Your task to perform on an android device: Go to calendar. Show me events next week Image 0: 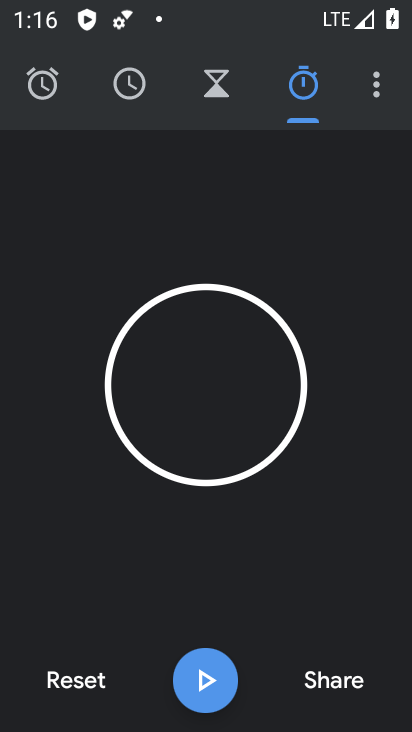
Step 0: press home button
Your task to perform on an android device: Go to calendar. Show me events next week Image 1: 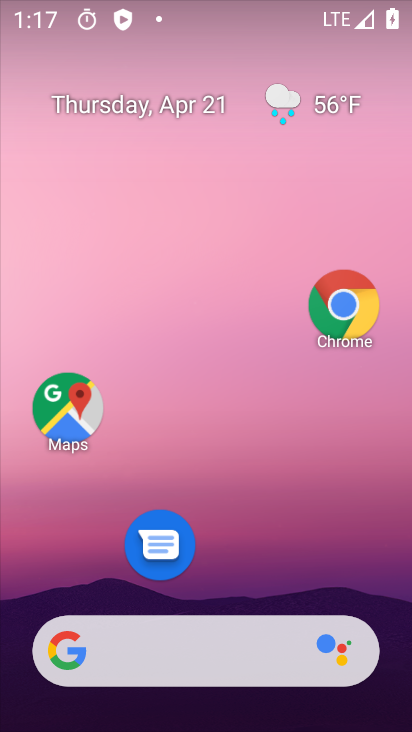
Step 1: drag from (151, 669) to (298, 226)
Your task to perform on an android device: Go to calendar. Show me events next week Image 2: 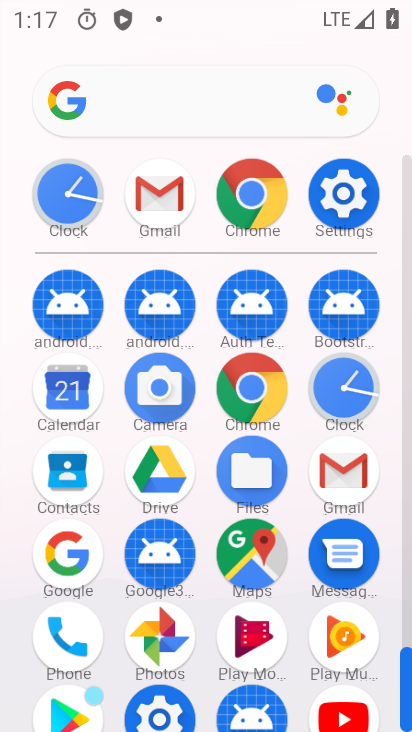
Step 2: click (75, 398)
Your task to perform on an android device: Go to calendar. Show me events next week Image 3: 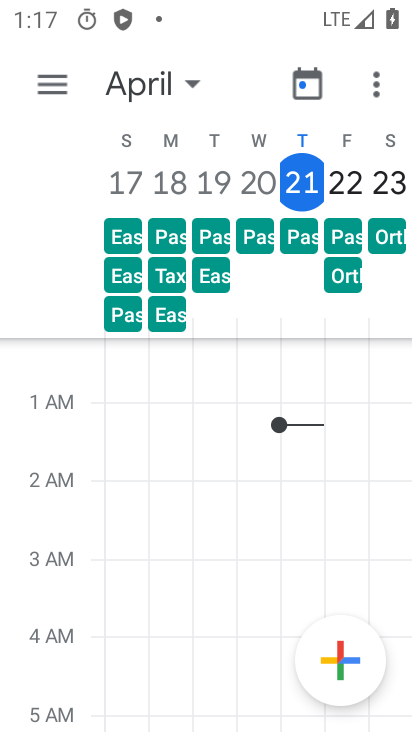
Step 3: click (132, 85)
Your task to perform on an android device: Go to calendar. Show me events next week Image 4: 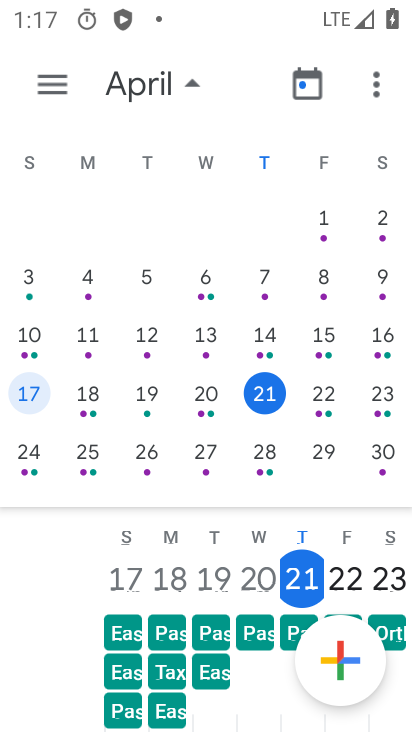
Step 4: drag from (363, 298) to (5, 294)
Your task to perform on an android device: Go to calendar. Show me events next week Image 5: 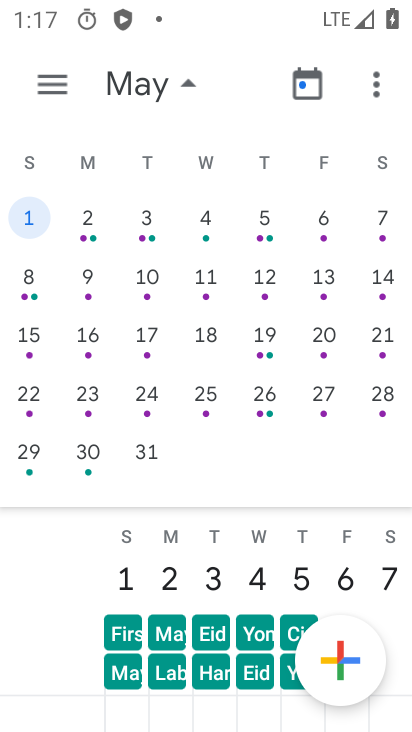
Step 5: drag from (29, 329) to (354, 306)
Your task to perform on an android device: Go to calendar. Show me events next week Image 6: 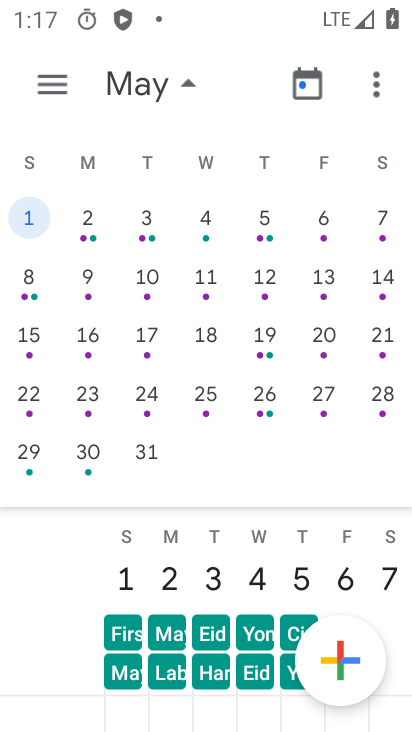
Step 6: drag from (188, 240) to (402, 241)
Your task to perform on an android device: Go to calendar. Show me events next week Image 7: 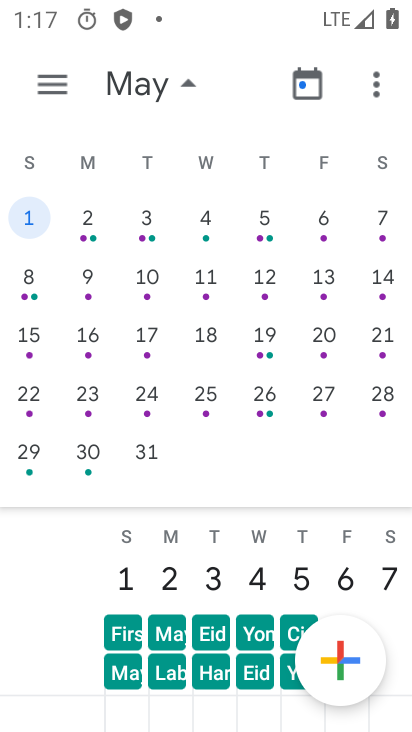
Step 7: drag from (137, 232) to (397, 255)
Your task to perform on an android device: Go to calendar. Show me events next week Image 8: 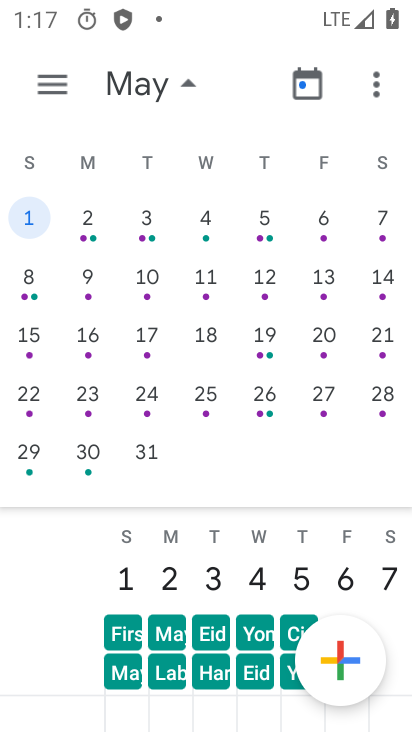
Step 8: click (185, 87)
Your task to perform on an android device: Go to calendar. Show me events next week Image 9: 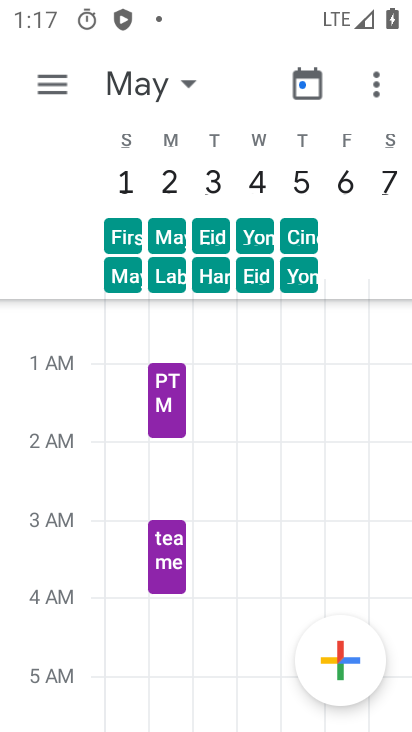
Step 9: click (155, 84)
Your task to perform on an android device: Go to calendar. Show me events next week Image 10: 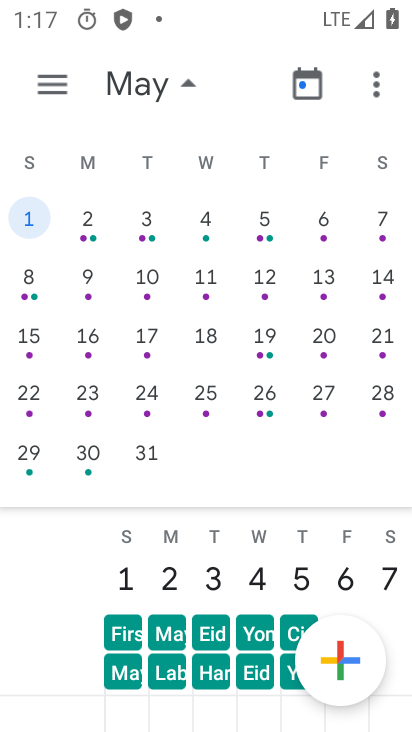
Step 10: click (304, 95)
Your task to perform on an android device: Go to calendar. Show me events next week Image 11: 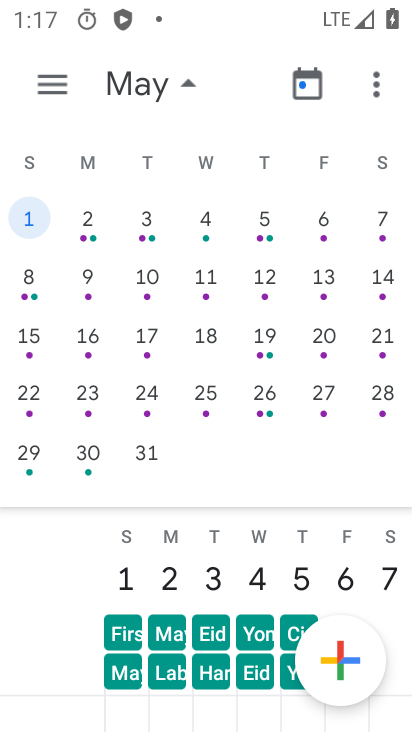
Step 11: drag from (130, 353) to (388, 331)
Your task to perform on an android device: Go to calendar. Show me events next week Image 12: 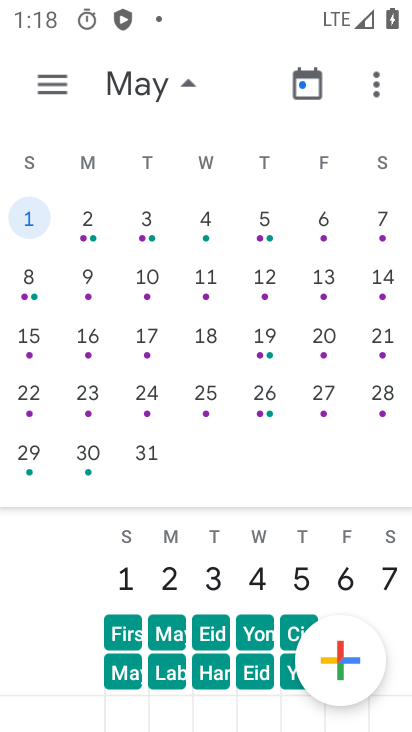
Step 12: drag from (140, 332) to (408, 340)
Your task to perform on an android device: Go to calendar. Show me events next week Image 13: 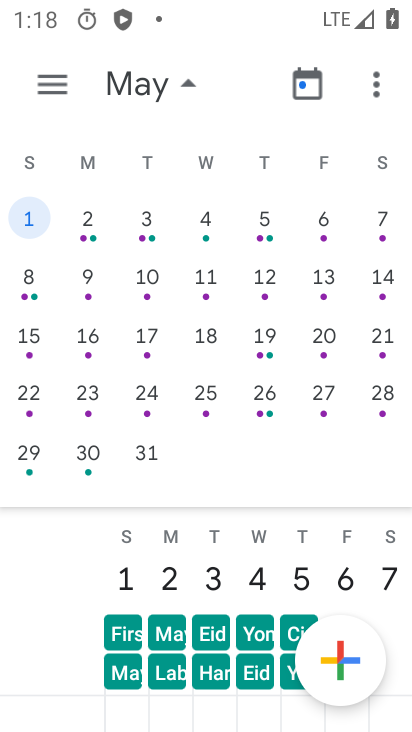
Step 13: drag from (108, 249) to (411, 298)
Your task to perform on an android device: Go to calendar. Show me events next week Image 14: 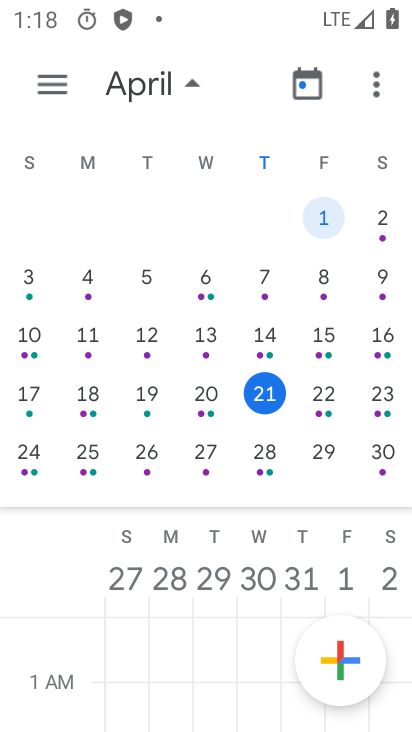
Step 14: click (23, 452)
Your task to perform on an android device: Go to calendar. Show me events next week Image 15: 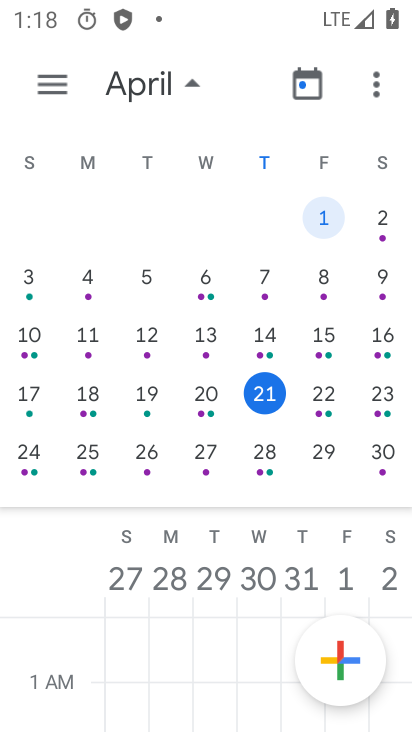
Step 15: click (37, 453)
Your task to perform on an android device: Go to calendar. Show me events next week Image 16: 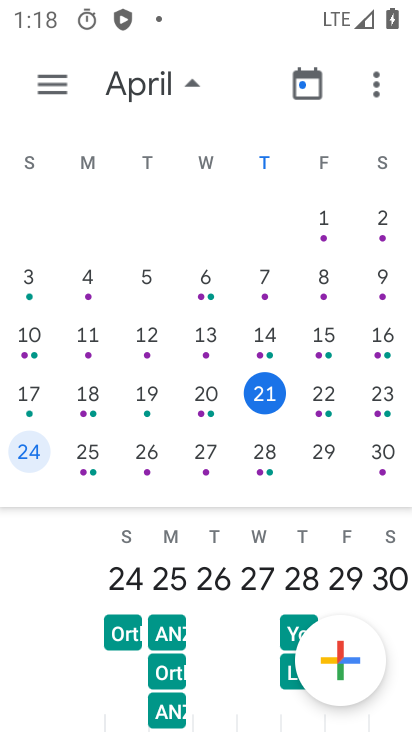
Step 16: click (52, 85)
Your task to perform on an android device: Go to calendar. Show me events next week Image 17: 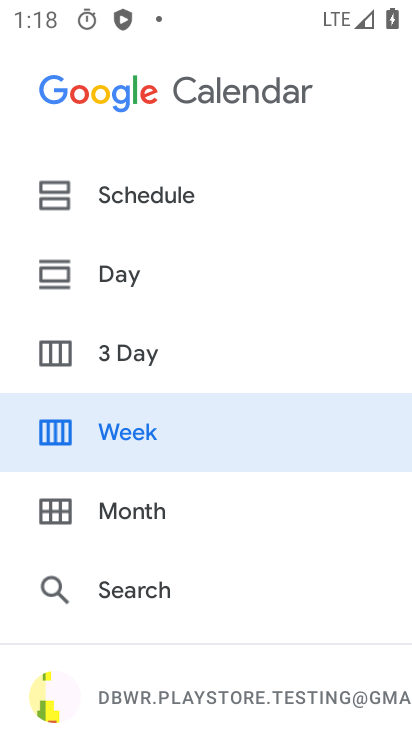
Step 17: click (115, 426)
Your task to perform on an android device: Go to calendar. Show me events next week Image 18: 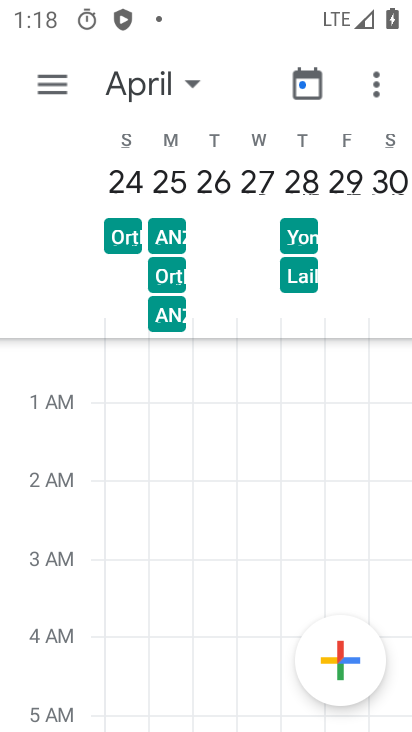
Step 18: click (53, 84)
Your task to perform on an android device: Go to calendar. Show me events next week Image 19: 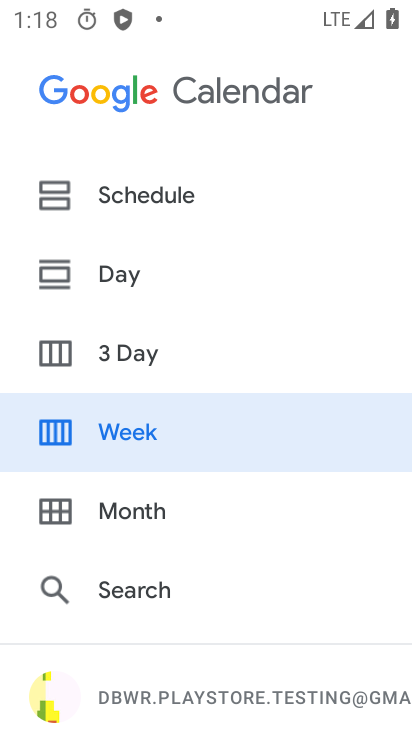
Step 19: click (124, 205)
Your task to perform on an android device: Go to calendar. Show me events next week Image 20: 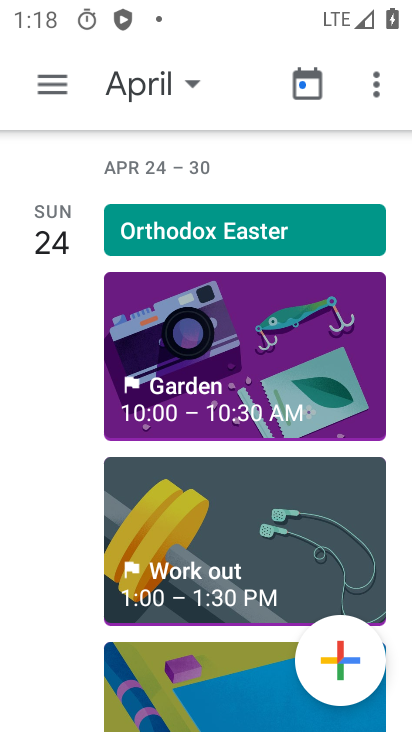
Step 20: click (216, 378)
Your task to perform on an android device: Go to calendar. Show me events next week Image 21: 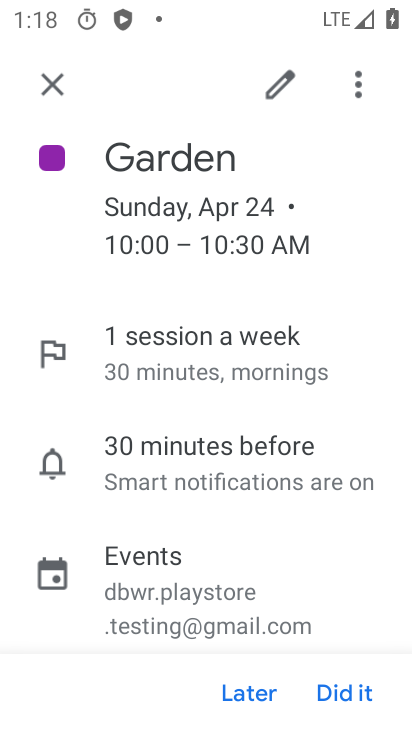
Step 21: task complete